Your task to perform on an android device: turn pop-ups off in chrome Image 0: 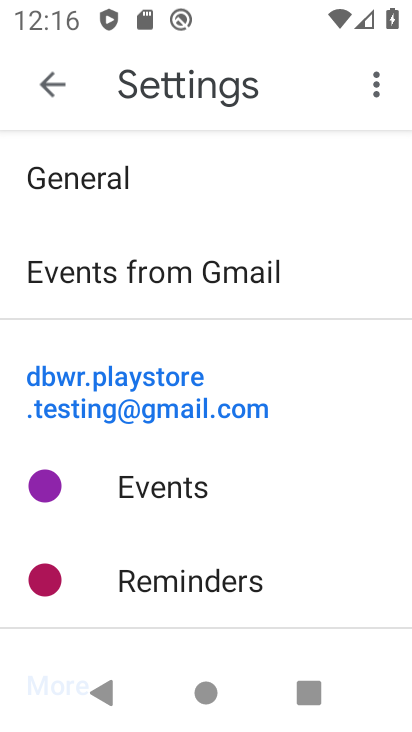
Step 0: press home button
Your task to perform on an android device: turn pop-ups off in chrome Image 1: 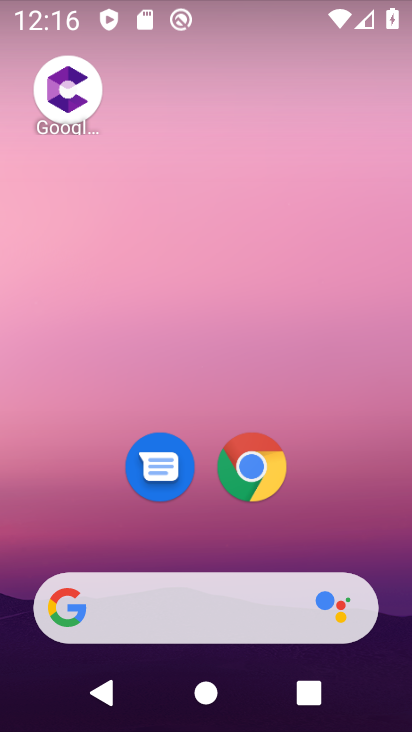
Step 1: drag from (200, 555) to (228, 0)
Your task to perform on an android device: turn pop-ups off in chrome Image 2: 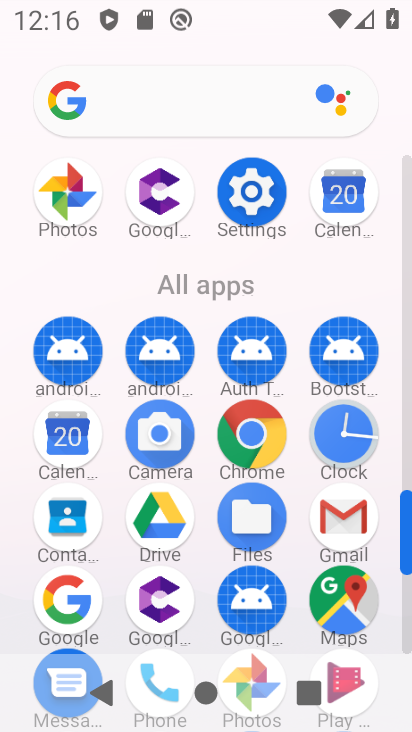
Step 2: click (249, 452)
Your task to perform on an android device: turn pop-ups off in chrome Image 3: 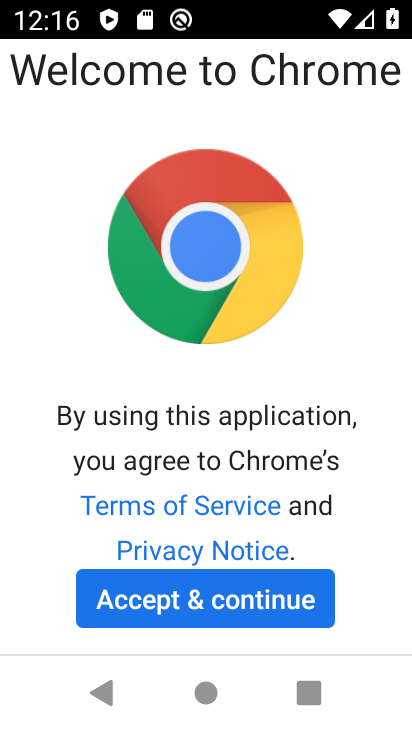
Step 3: click (191, 613)
Your task to perform on an android device: turn pop-ups off in chrome Image 4: 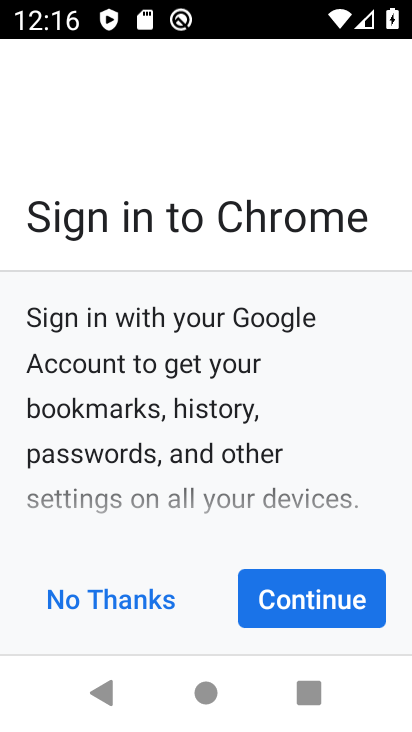
Step 4: click (275, 606)
Your task to perform on an android device: turn pop-ups off in chrome Image 5: 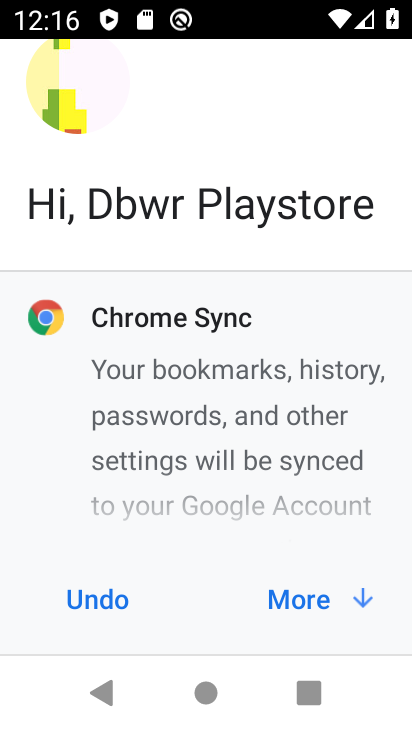
Step 5: click (275, 606)
Your task to perform on an android device: turn pop-ups off in chrome Image 6: 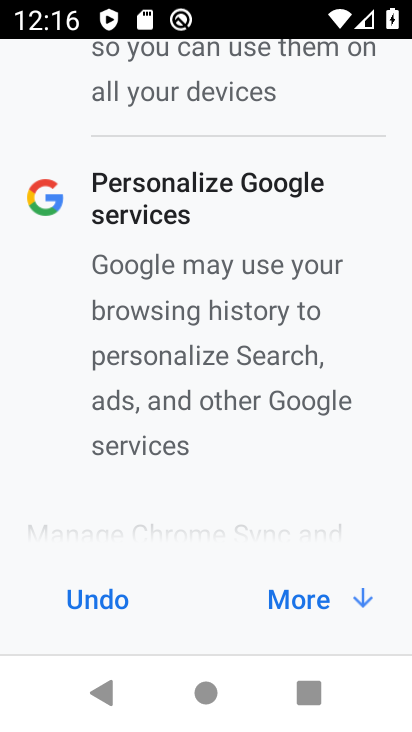
Step 6: click (275, 606)
Your task to perform on an android device: turn pop-ups off in chrome Image 7: 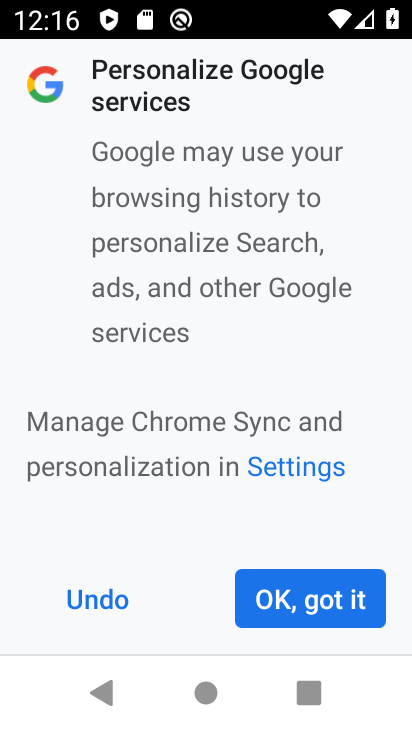
Step 7: click (275, 606)
Your task to perform on an android device: turn pop-ups off in chrome Image 8: 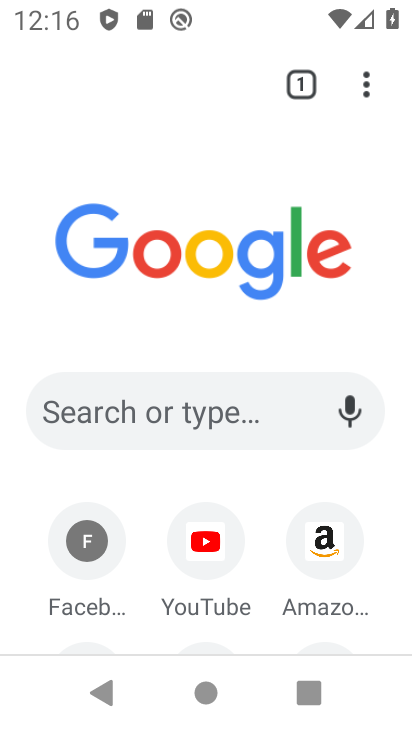
Step 8: click (370, 78)
Your task to perform on an android device: turn pop-ups off in chrome Image 9: 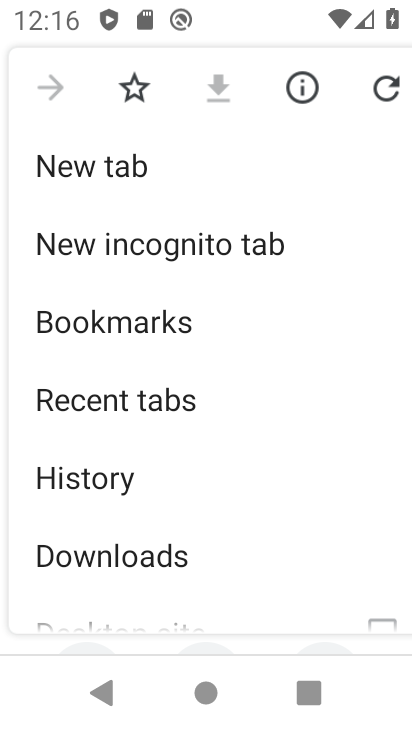
Step 9: drag from (160, 489) to (202, 201)
Your task to perform on an android device: turn pop-ups off in chrome Image 10: 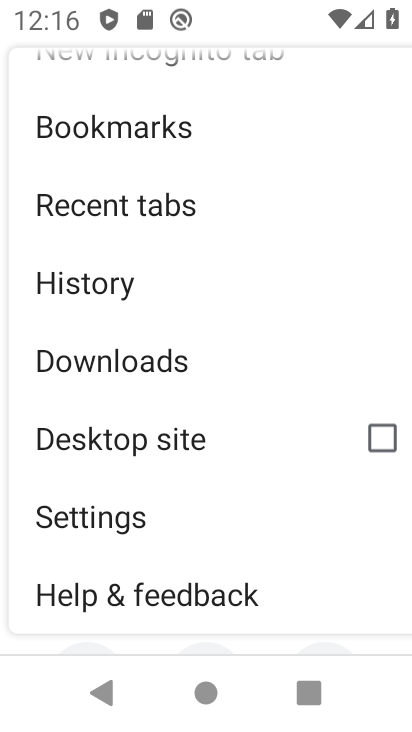
Step 10: click (114, 529)
Your task to perform on an android device: turn pop-ups off in chrome Image 11: 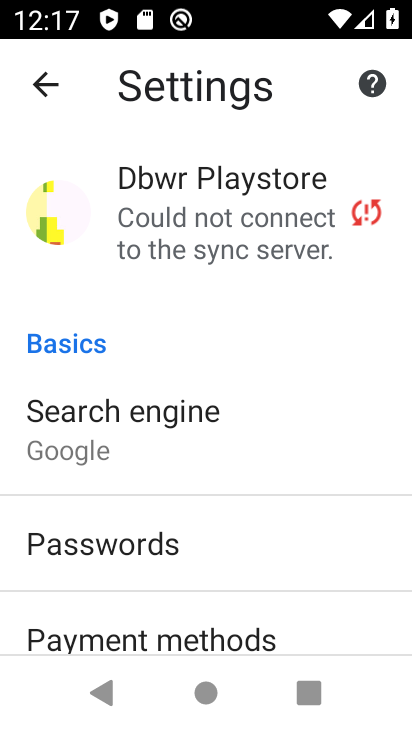
Step 11: drag from (182, 524) to (269, 141)
Your task to perform on an android device: turn pop-ups off in chrome Image 12: 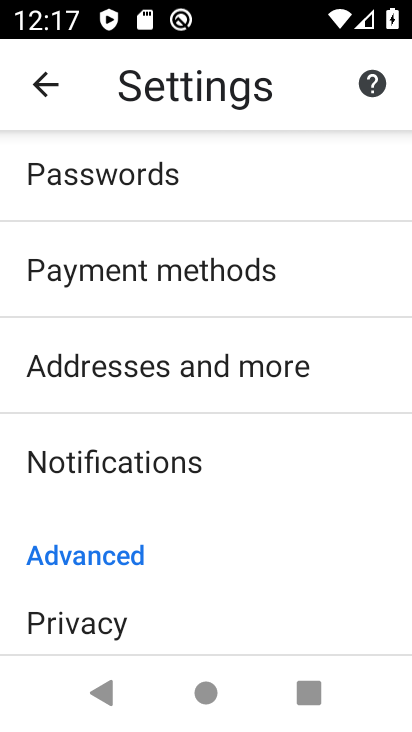
Step 12: drag from (186, 568) to (215, 234)
Your task to perform on an android device: turn pop-ups off in chrome Image 13: 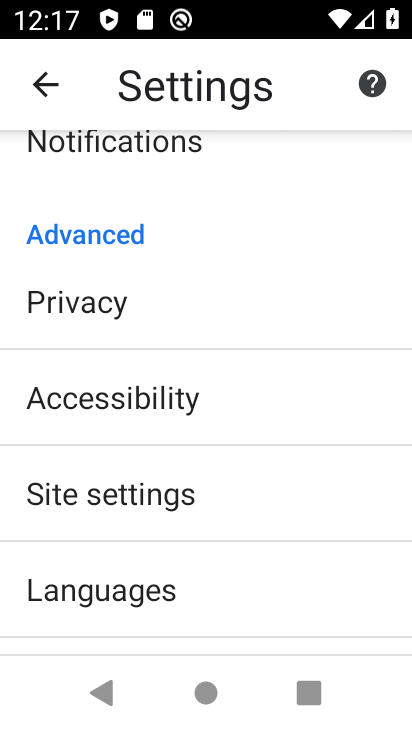
Step 13: click (147, 486)
Your task to perform on an android device: turn pop-ups off in chrome Image 14: 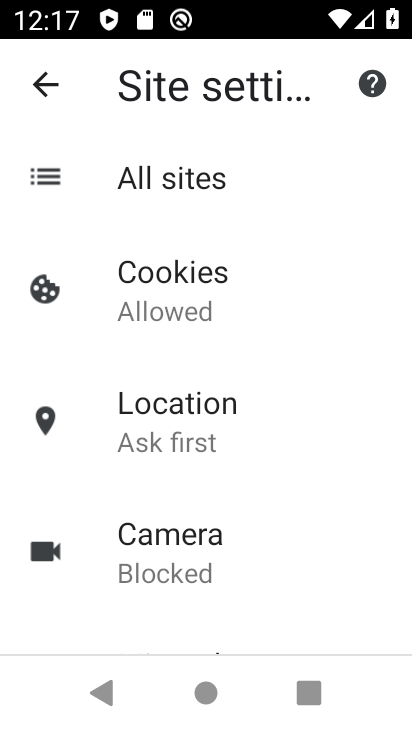
Step 14: drag from (245, 499) to (272, 253)
Your task to perform on an android device: turn pop-ups off in chrome Image 15: 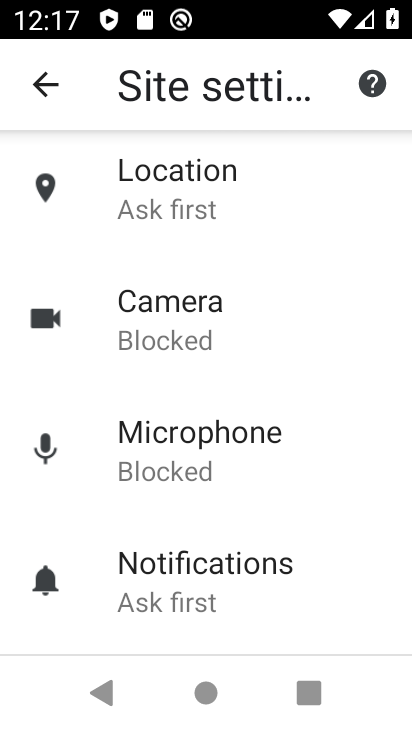
Step 15: drag from (229, 562) to (235, 331)
Your task to perform on an android device: turn pop-ups off in chrome Image 16: 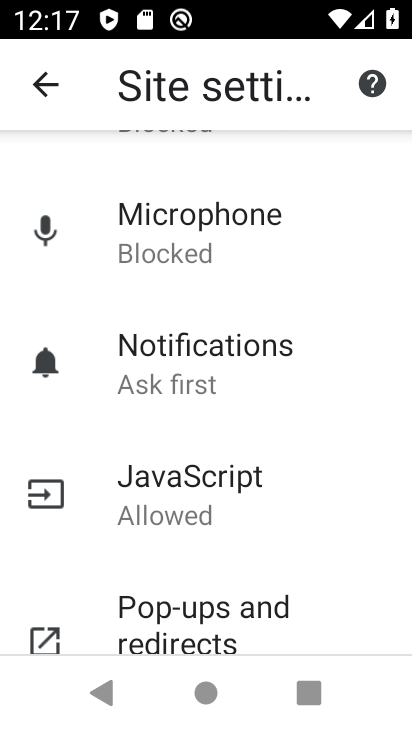
Step 16: click (223, 630)
Your task to perform on an android device: turn pop-ups off in chrome Image 17: 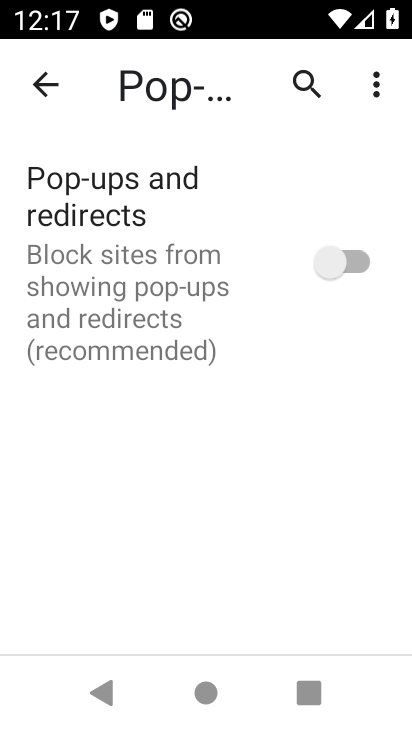
Step 17: click (338, 270)
Your task to perform on an android device: turn pop-ups off in chrome Image 18: 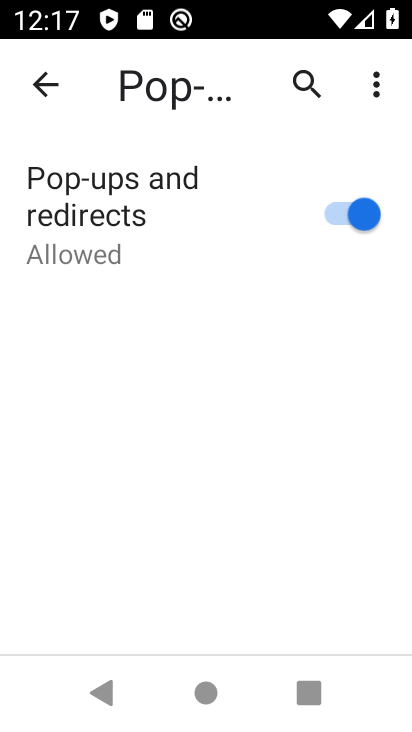
Step 18: click (359, 212)
Your task to perform on an android device: turn pop-ups off in chrome Image 19: 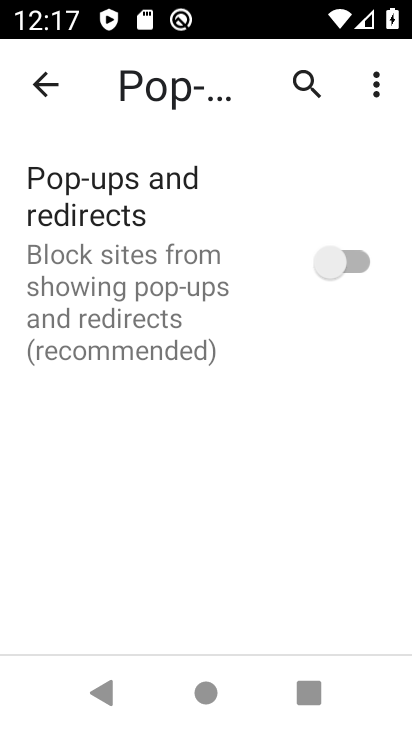
Step 19: task complete